Your task to perform on an android device: What is the recent news? Image 0: 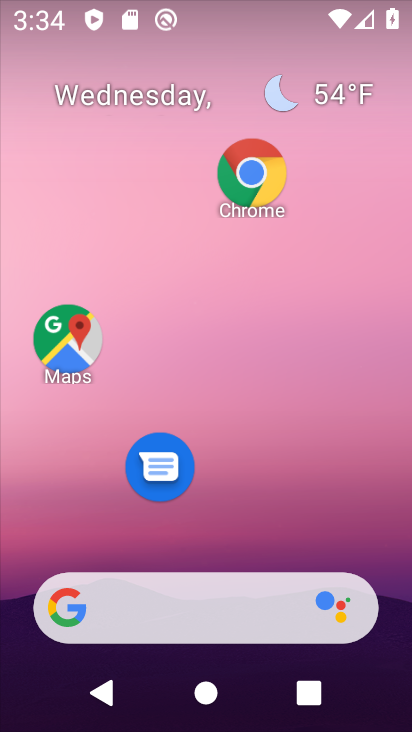
Step 0: drag from (220, 499) to (218, 108)
Your task to perform on an android device: What is the recent news? Image 1: 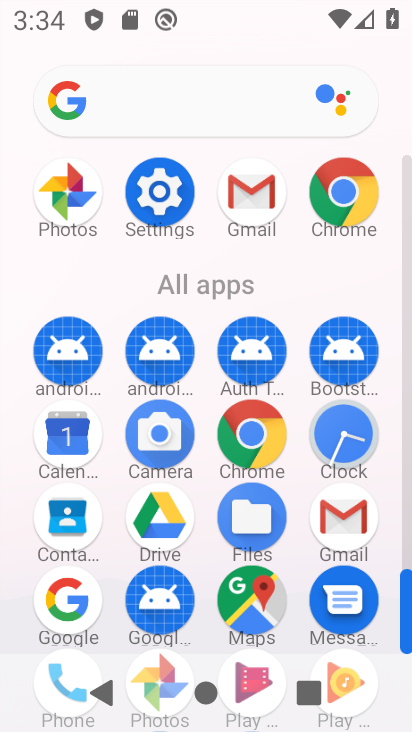
Step 1: click (167, 101)
Your task to perform on an android device: What is the recent news? Image 2: 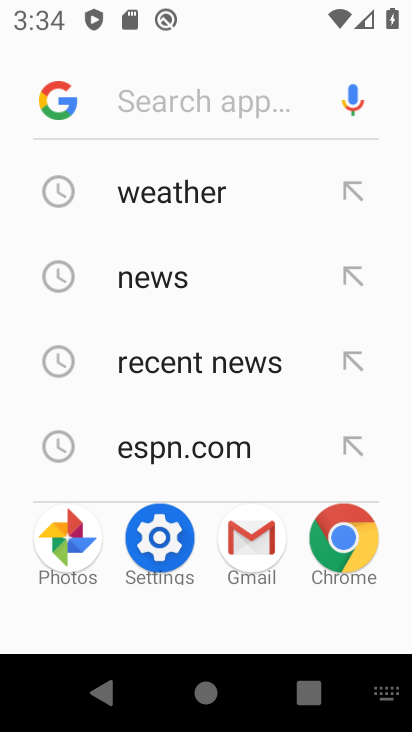
Step 2: click (176, 364)
Your task to perform on an android device: What is the recent news? Image 3: 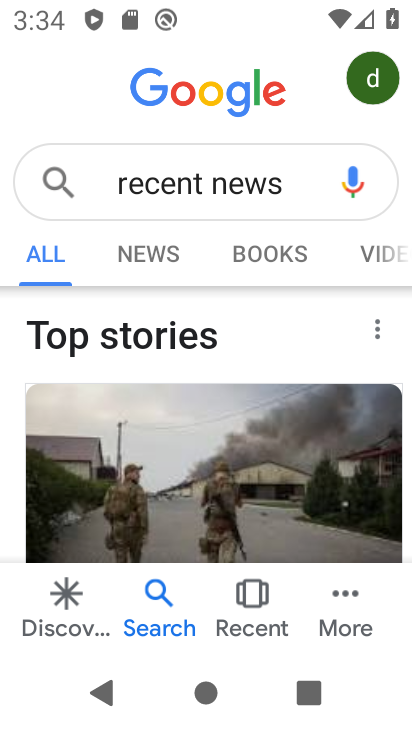
Step 3: task complete